Your task to perform on an android device: What's on my calendar today? Image 0: 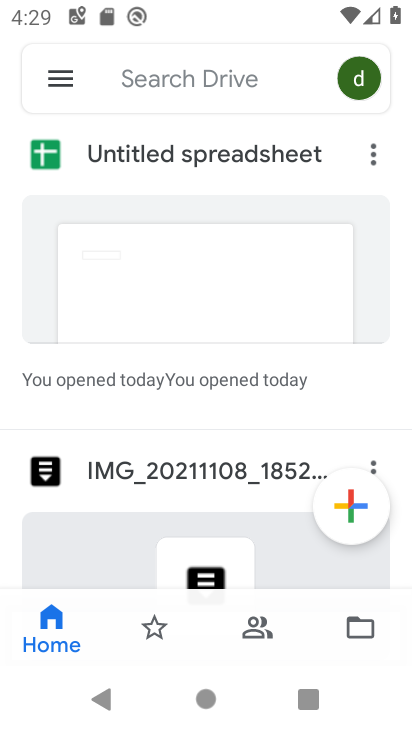
Step 0: press home button
Your task to perform on an android device: What's on my calendar today? Image 1: 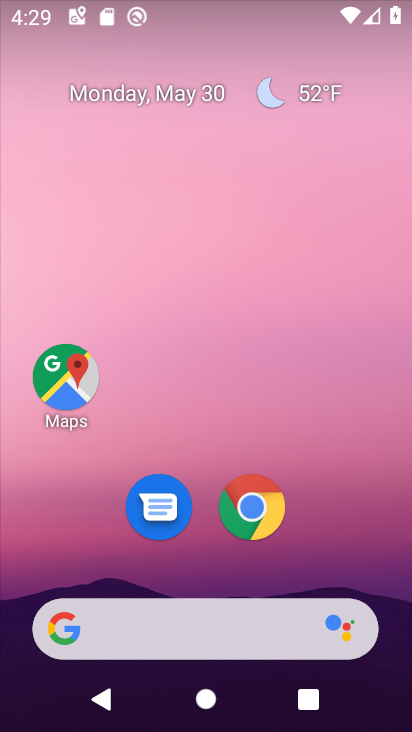
Step 1: drag from (341, 553) to (365, 108)
Your task to perform on an android device: What's on my calendar today? Image 2: 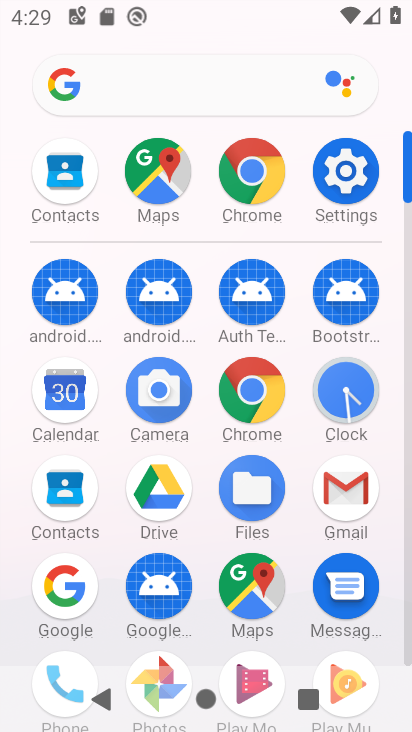
Step 2: click (56, 383)
Your task to perform on an android device: What's on my calendar today? Image 3: 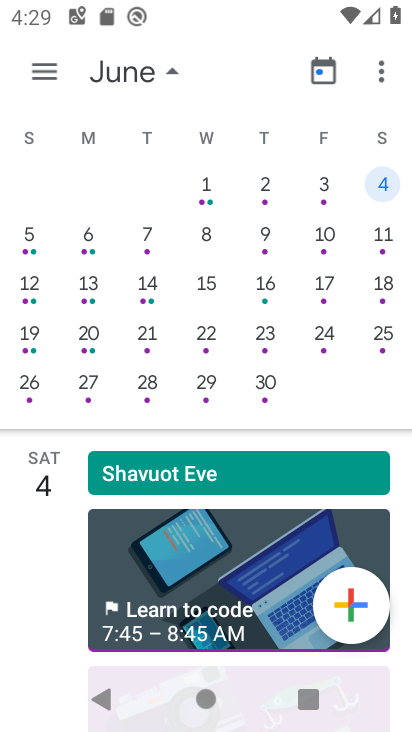
Step 3: drag from (300, 304) to (372, 308)
Your task to perform on an android device: What's on my calendar today? Image 4: 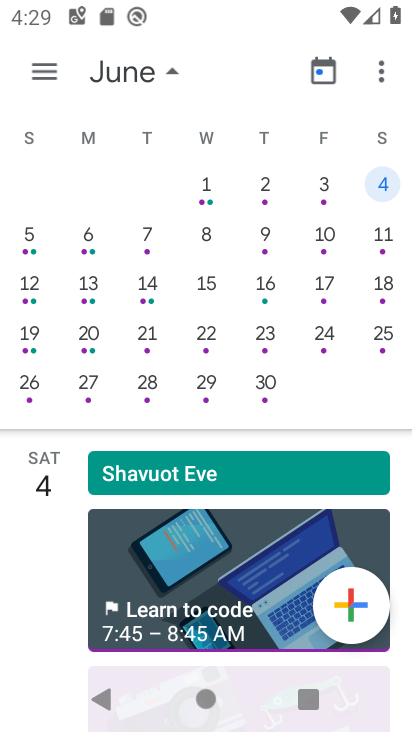
Step 4: drag from (58, 304) to (353, 280)
Your task to perform on an android device: What's on my calendar today? Image 5: 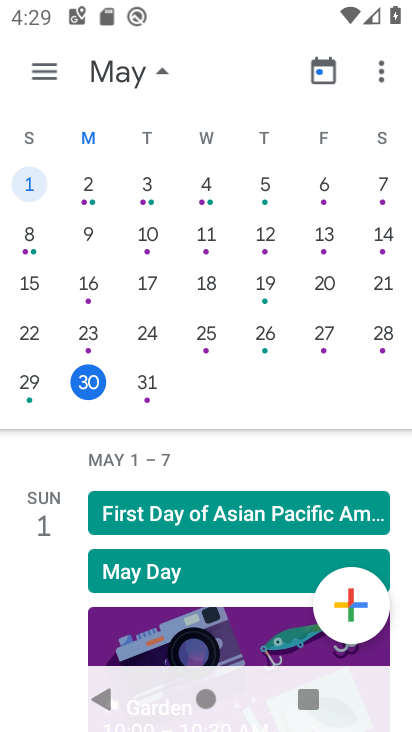
Step 5: click (80, 375)
Your task to perform on an android device: What's on my calendar today? Image 6: 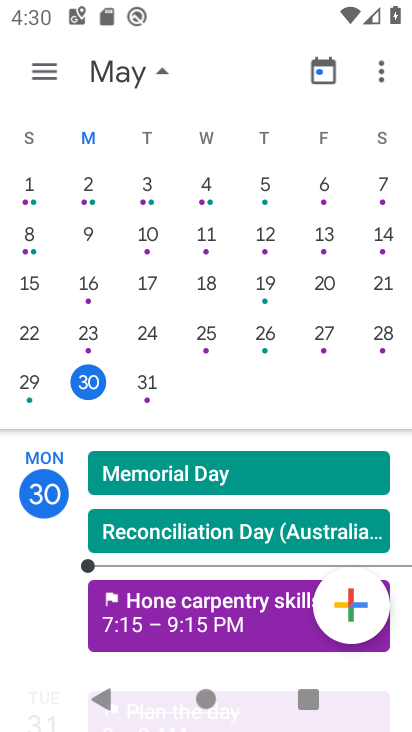
Step 6: task complete